Your task to perform on an android device: Open Maps and search for coffee Image 0: 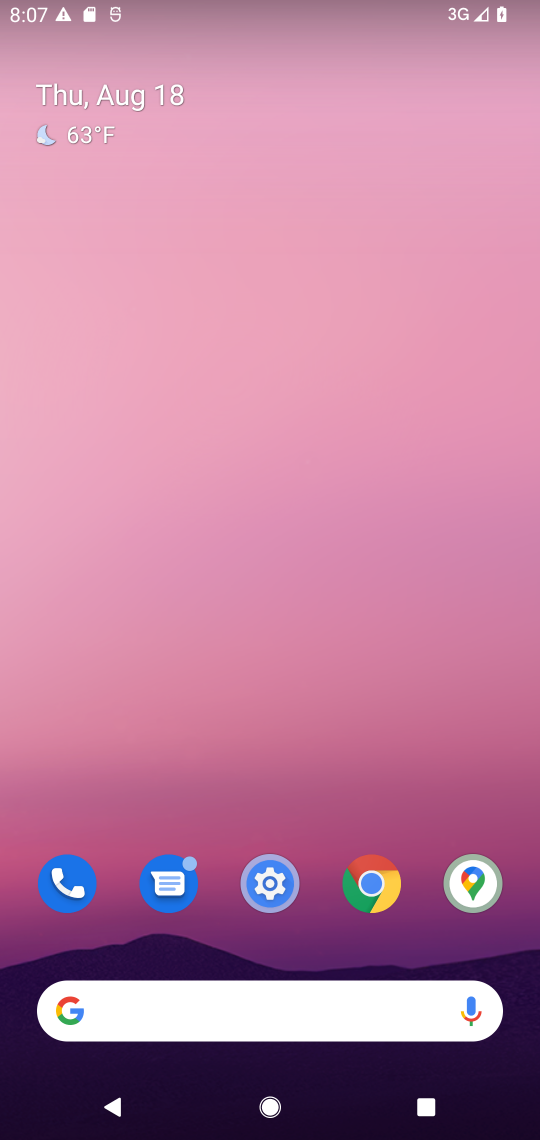
Step 0: click (521, 879)
Your task to perform on an android device: Open Maps and search for coffee Image 1: 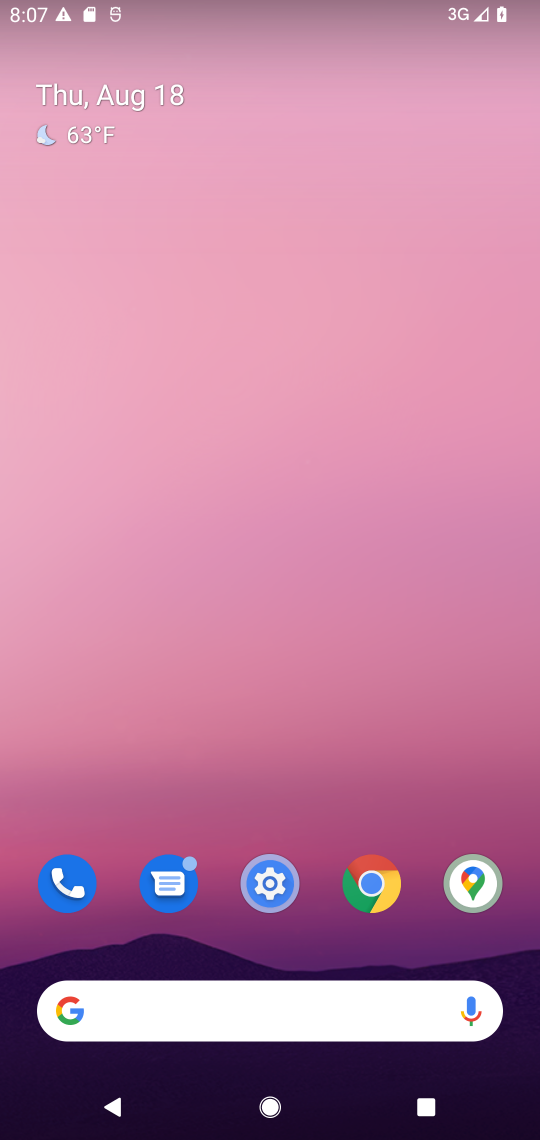
Step 1: click (446, 886)
Your task to perform on an android device: Open Maps and search for coffee Image 2: 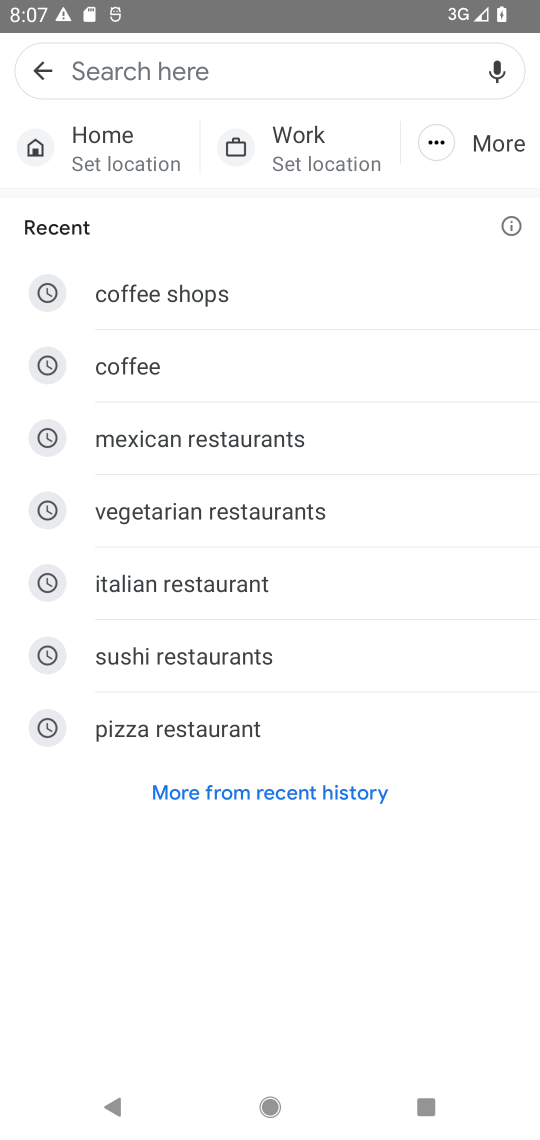
Step 2: click (142, 379)
Your task to perform on an android device: Open Maps and search for coffee Image 3: 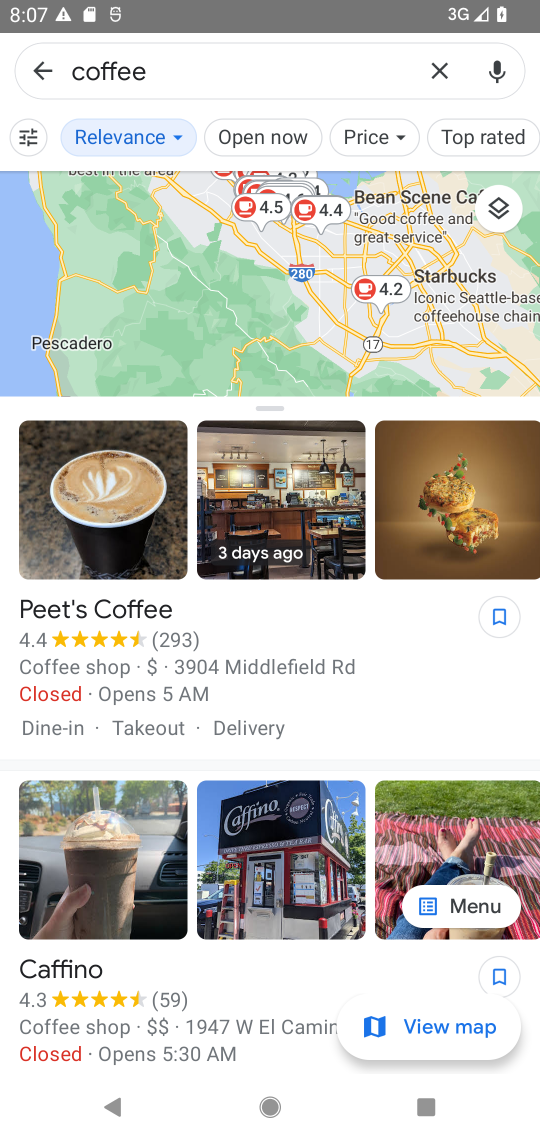
Step 3: task complete